Your task to perform on an android device: Go to wifi settings Image 0: 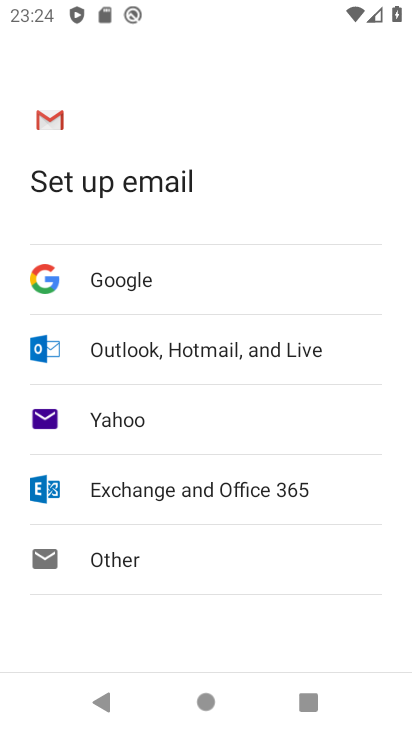
Step 0: press home button
Your task to perform on an android device: Go to wifi settings Image 1: 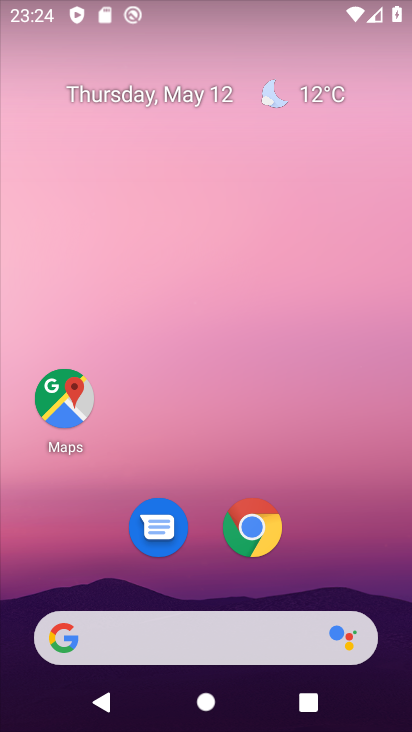
Step 1: drag from (201, 4) to (200, 556)
Your task to perform on an android device: Go to wifi settings Image 2: 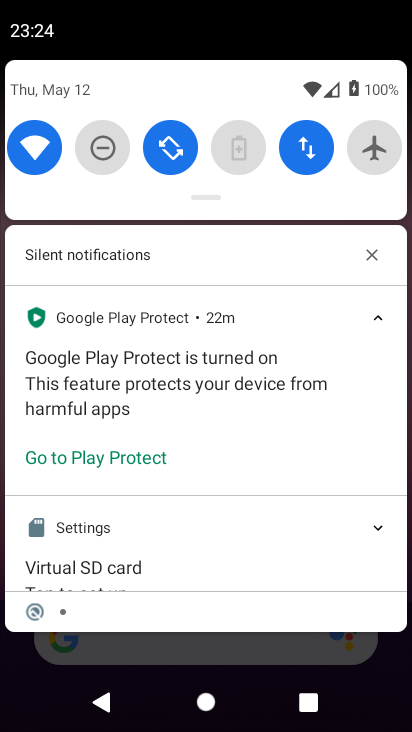
Step 2: click (28, 140)
Your task to perform on an android device: Go to wifi settings Image 3: 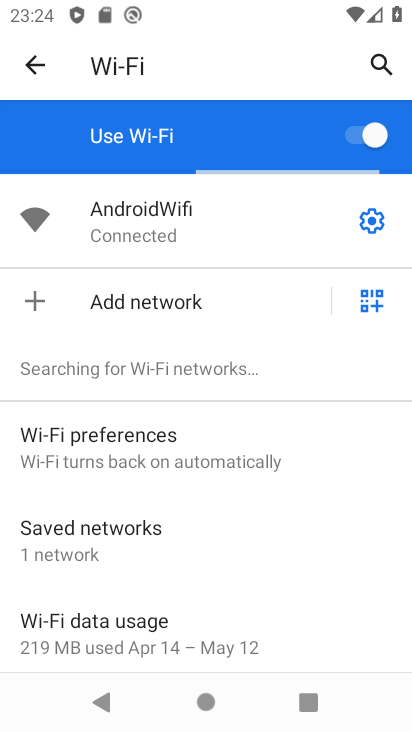
Step 3: click (379, 223)
Your task to perform on an android device: Go to wifi settings Image 4: 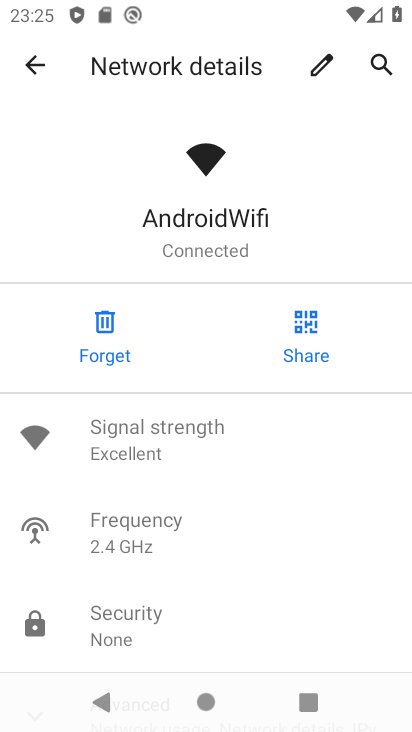
Step 4: task complete